Your task to perform on an android device: show emergency info Image 0: 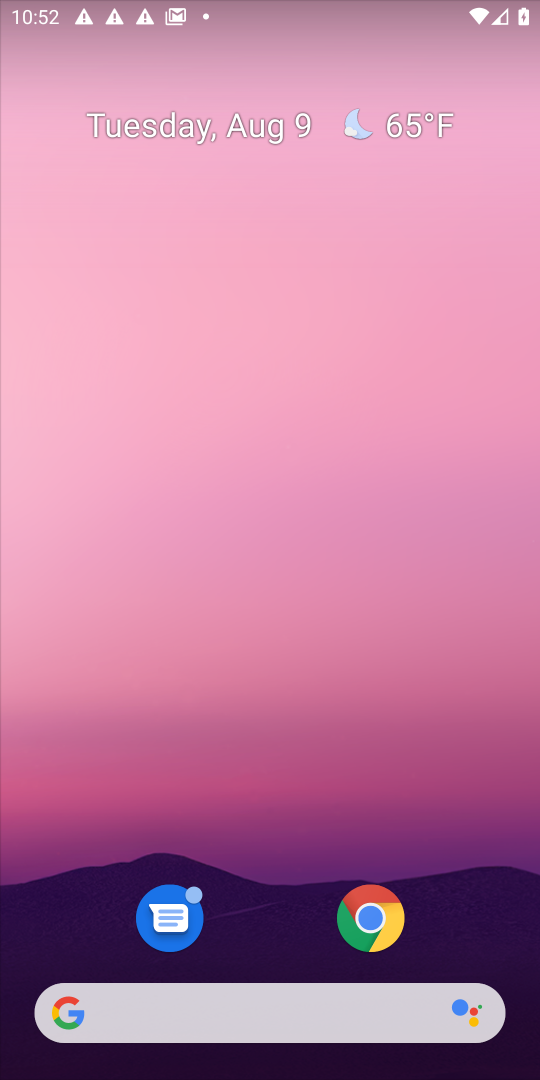
Step 0: drag from (279, 912) to (295, 109)
Your task to perform on an android device: show emergency info Image 1: 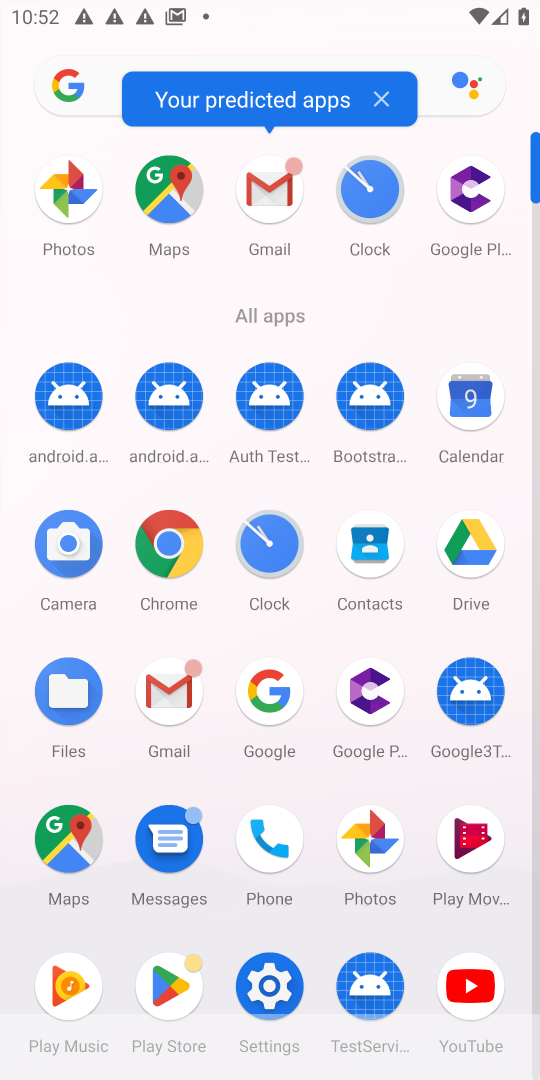
Step 1: click (270, 981)
Your task to perform on an android device: show emergency info Image 2: 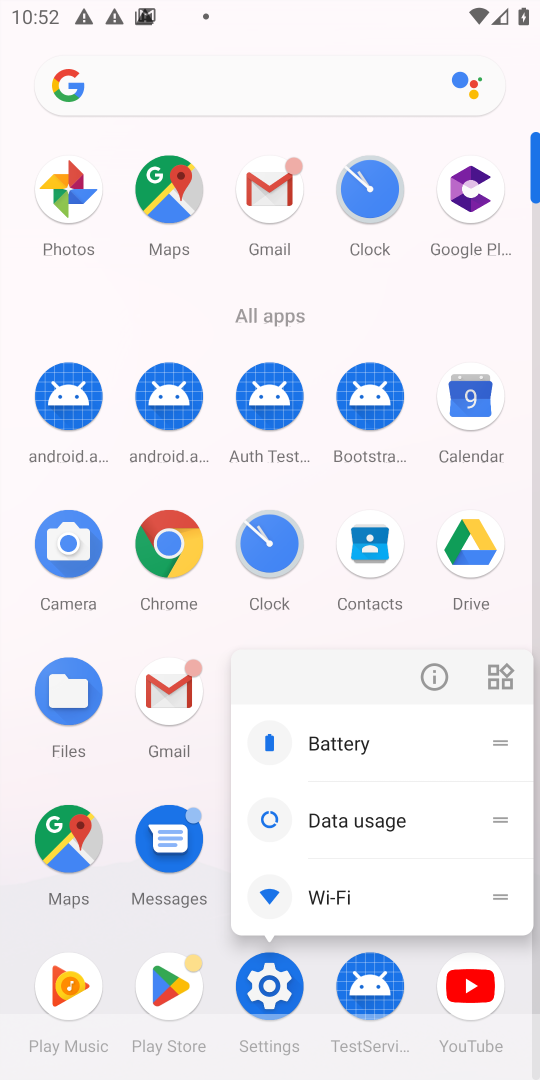
Step 2: click (270, 978)
Your task to perform on an android device: show emergency info Image 3: 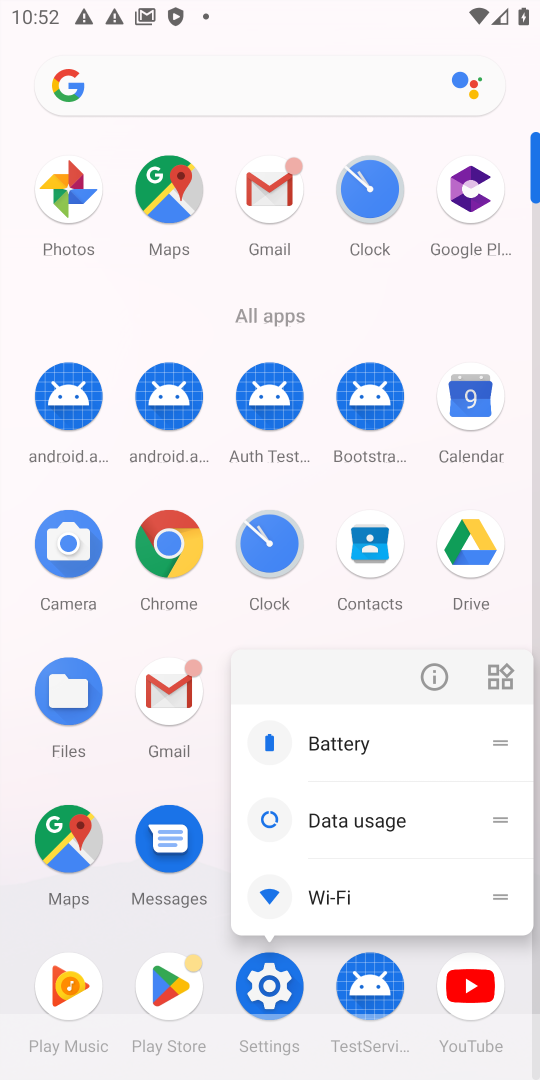
Step 3: click (270, 986)
Your task to perform on an android device: show emergency info Image 4: 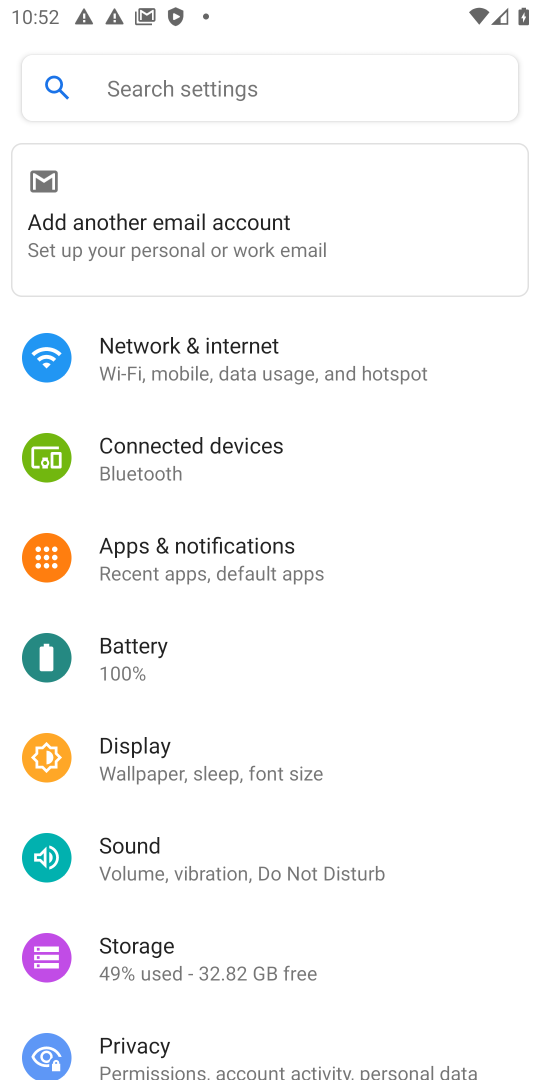
Step 4: drag from (362, 803) to (361, 94)
Your task to perform on an android device: show emergency info Image 5: 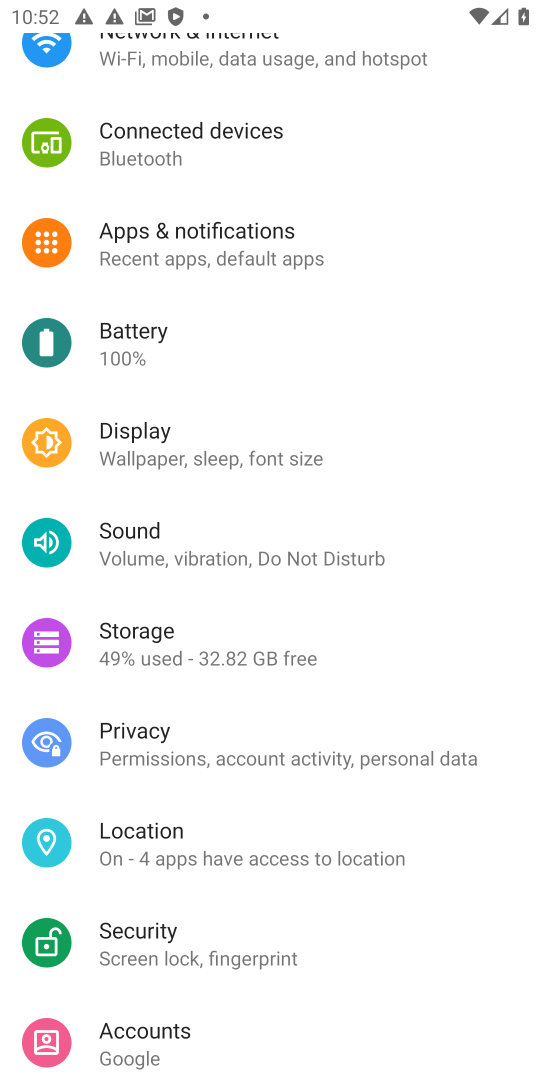
Step 5: drag from (195, 901) to (237, 303)
Your task to perform on an android device: show emergency info Image 6: 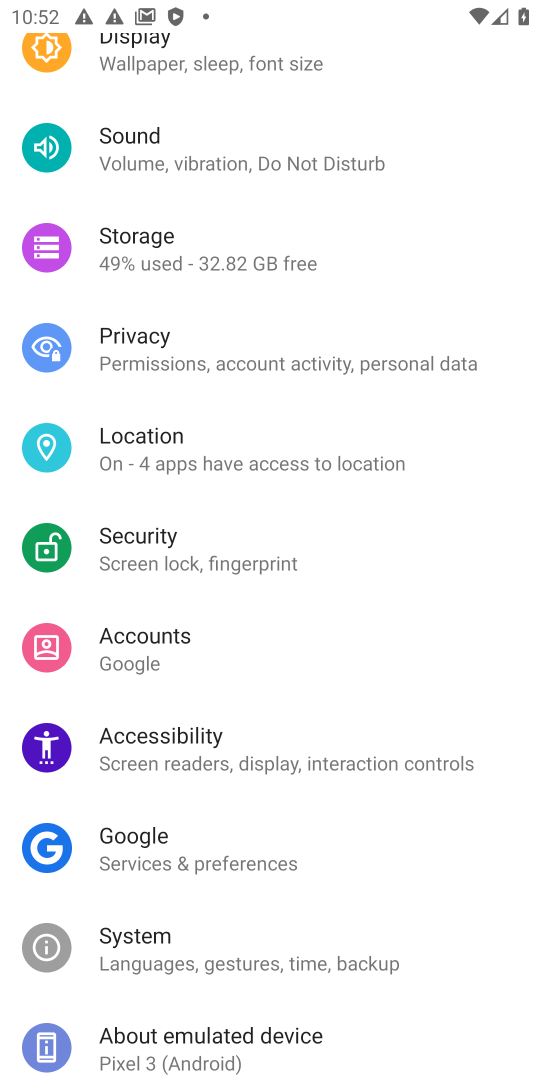
Step 6: click (208, 1050)
Your task to perform on an android device: show emergency info Image 7: 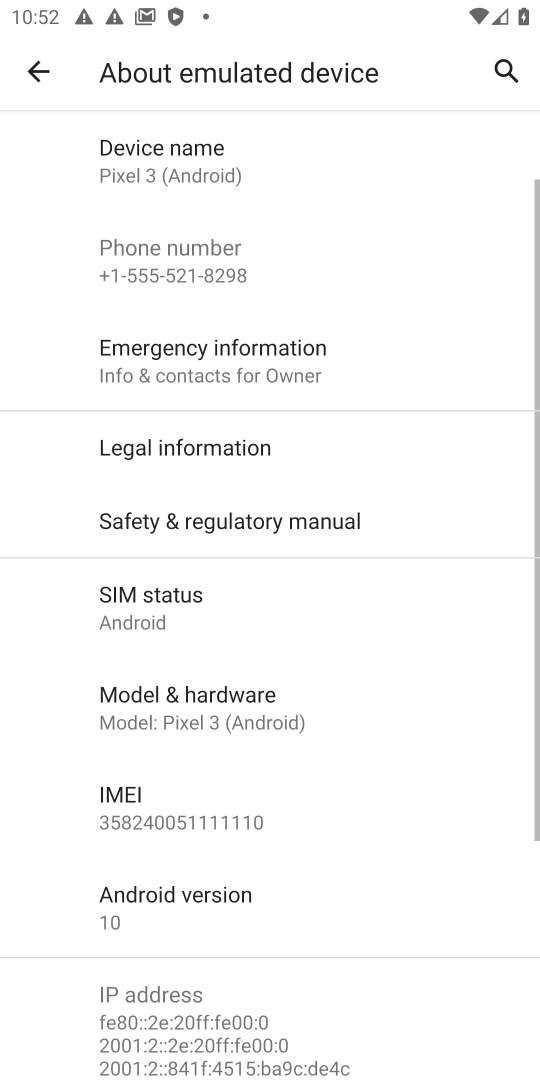
Step 7: click (199, 342)
Your task to perform on an android device: show emergency info Image 8: 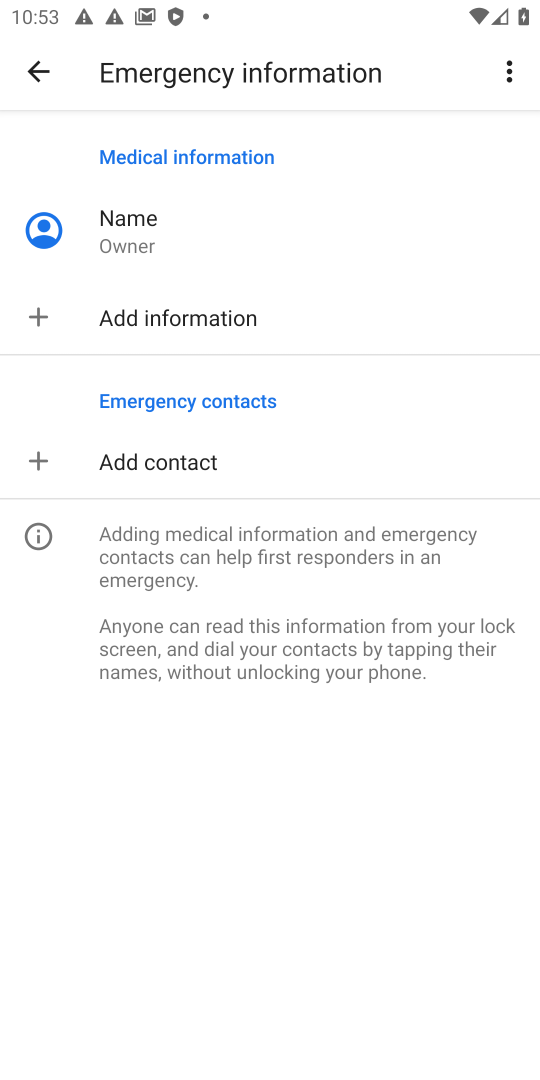
Step 8: task complete